Your task to perform on an android device: Open the calendar and show me this week's events? Image 0: 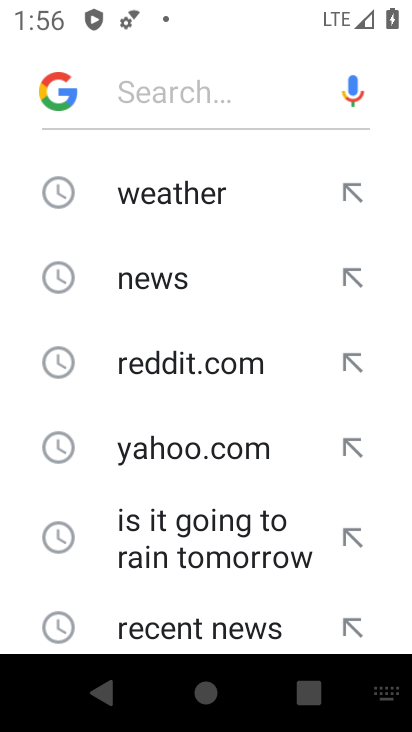
Step 0: press home button
Your task to perform on an android device: Open the calendar and show me this week's events? Image 1: 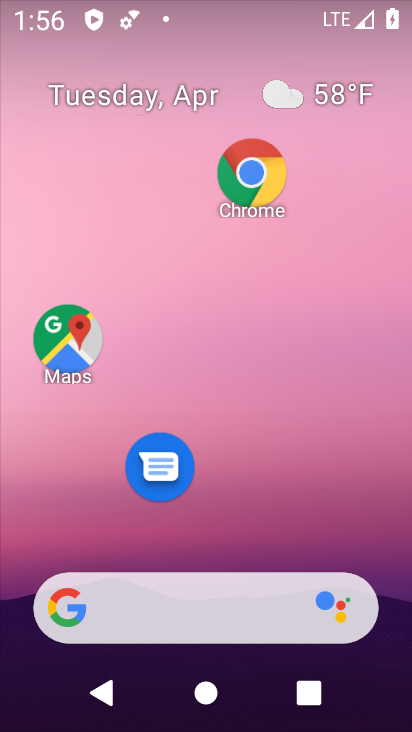
Step 1: drag from (79, 704) to (134, 45)
Your task to perform on an android device: Open the calendar and show me this week's events? Image 2: 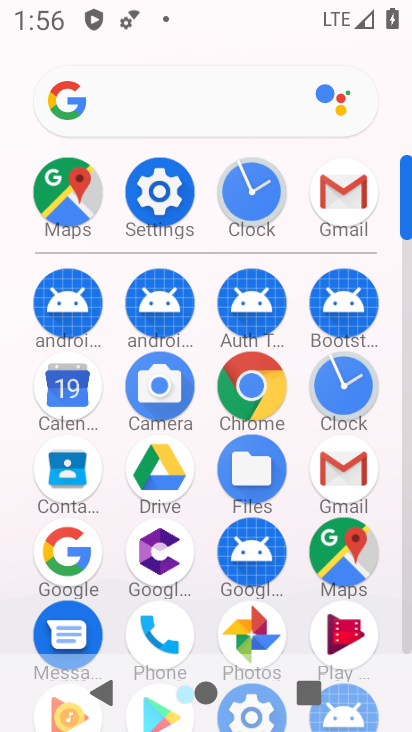
Step 2: click (64, 361)
Your task to perform on an android device: Open the calendar and show me this week's events? Image 3: 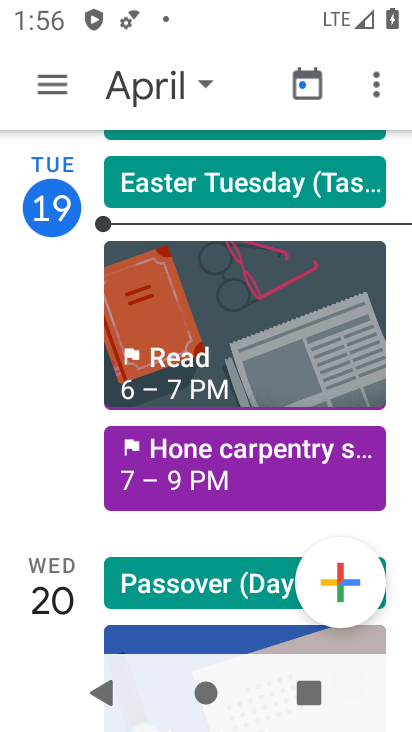
Step 3: click (87, 400)
Your task to perform on an android device: Open the calendar and show me this week's events? Image 4: 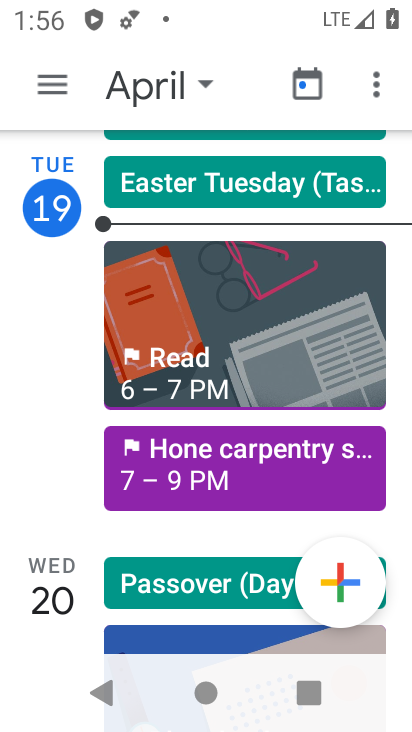
Step 4: click (199, 83)
Your task to perform on an android device: Open the calendar and show me this week's events? Image 5: 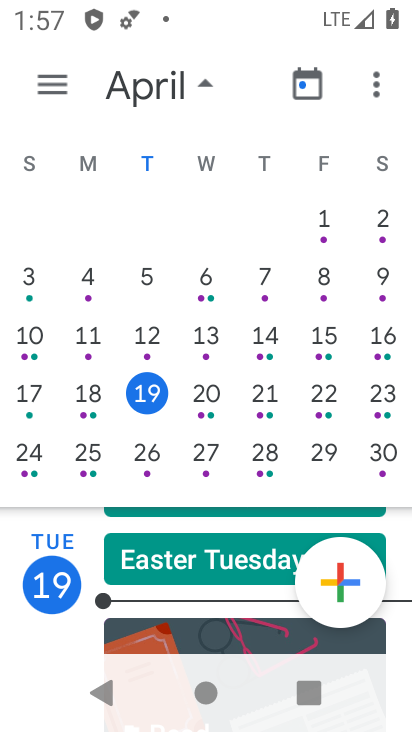
Step 5: click (250, 394)
Your task to perform on an android device: Open the calendar and show me this week's events? Image 6: 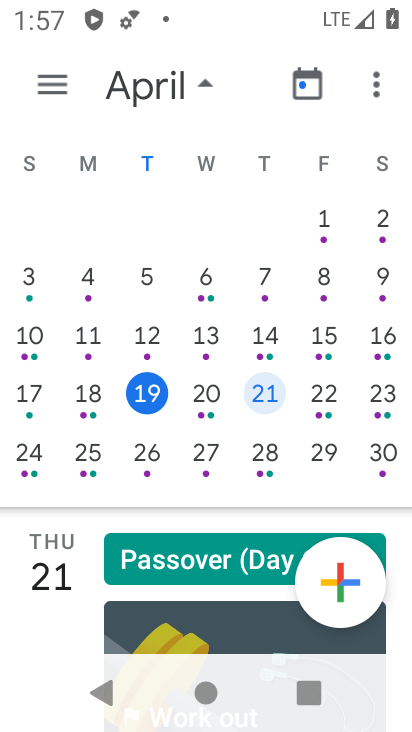
Step 6: click (50, 75)
Your task to perform on an android device: Open the calendar and show me this week's events? Image 7: 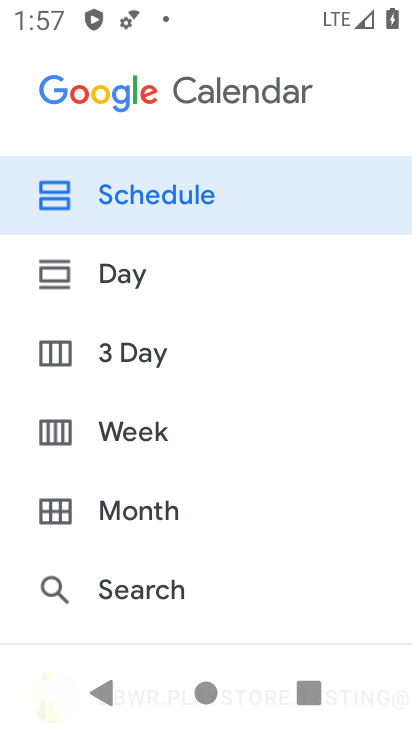
Step 7: click (104, 437)
Your task to perform on an android device: Open the calendar and show me this week's events? Image 8: 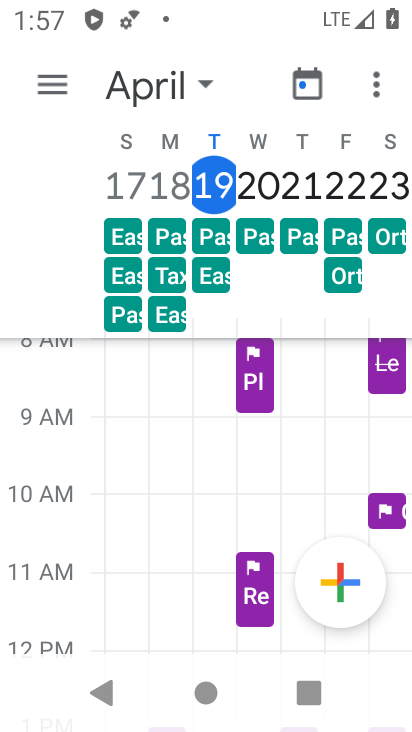
Step 8: task complete